Your task to perform on an android device: Go to eBay Image 0: 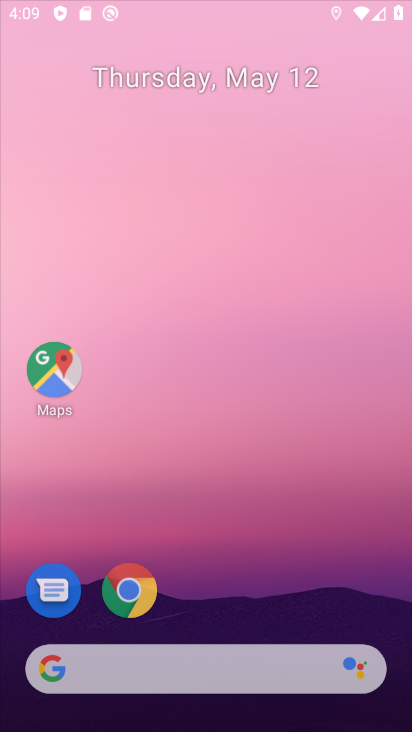
Step 0: click (199, 136)
Your task to perform on an android device: Go to eBay Image 1: 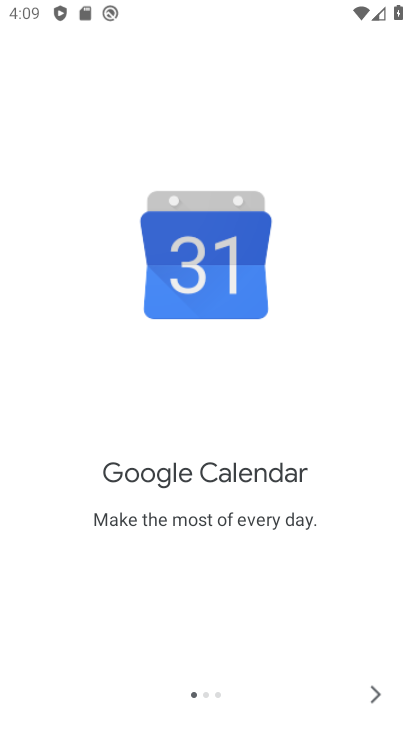
Step 1: press home button
Your task to perform on an android device: Go to eBay Image 2: 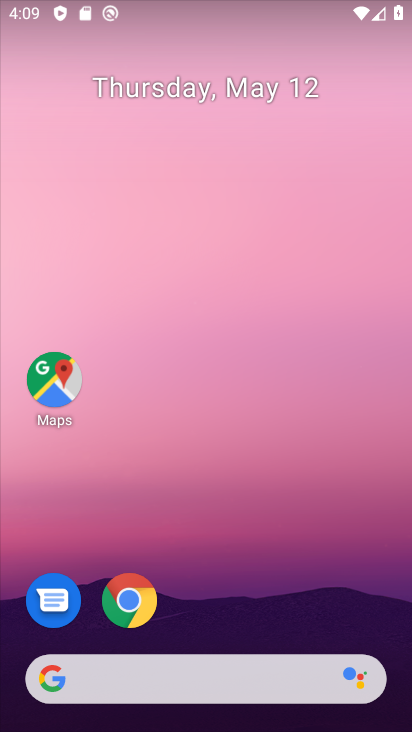
Step 2: drag from (216, 640) to (275, 134)
Your task to perform on an android device: Go to eBay Image 3: 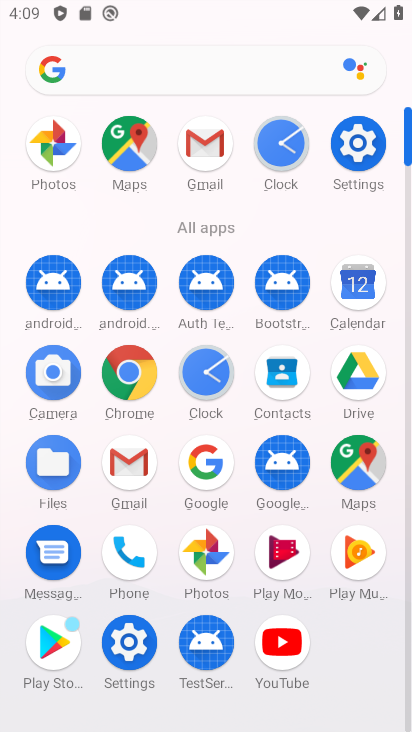
Step 3: click (162, 71)
Your task to perform on an android device: Go to eBay Image 4: 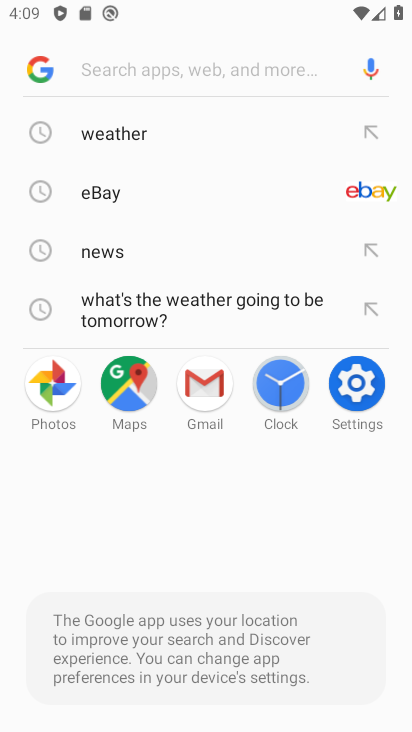
Step 4: click (175, 199)
Your task to perform on an android device: Go to eBay Image 5: 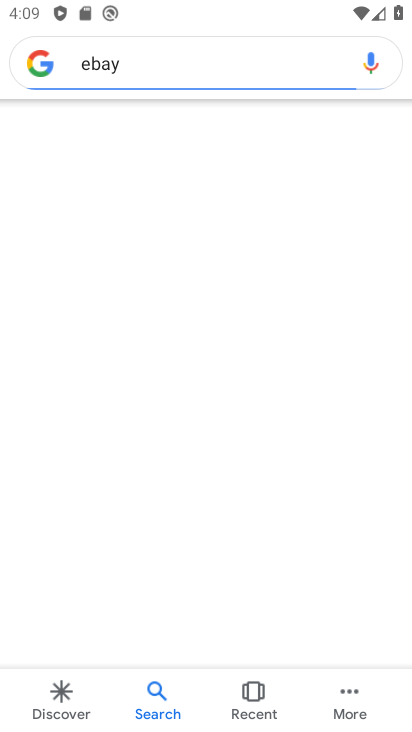
Step 5: drag from (215, 598) to (272, 282)
Your task to perform on an android device: Go to eBay Image 6: 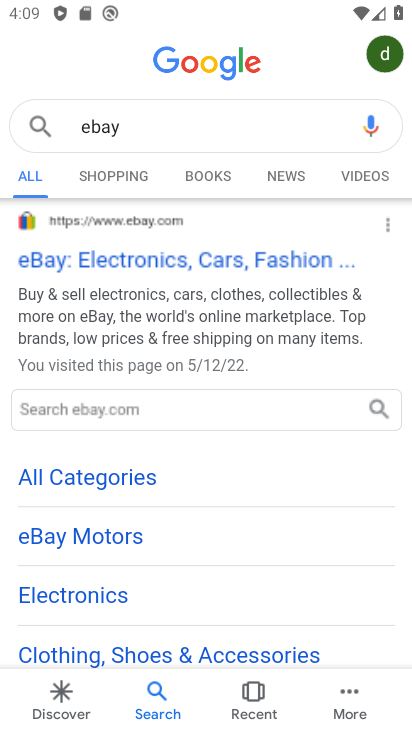
Step 6: drag from (169, 576) to (256, 215)
Your task to perform on an android device: Go to eBay Image 7: 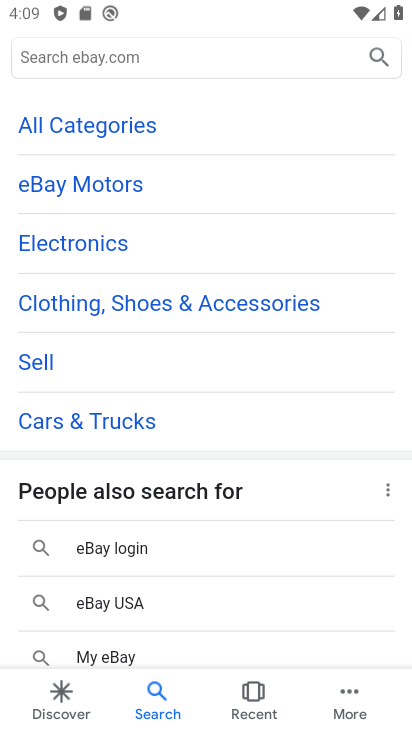
Step 7: drag from (187, 262) to (253, 643)
Your task to perform on an android device: Go to eBay Image 8: 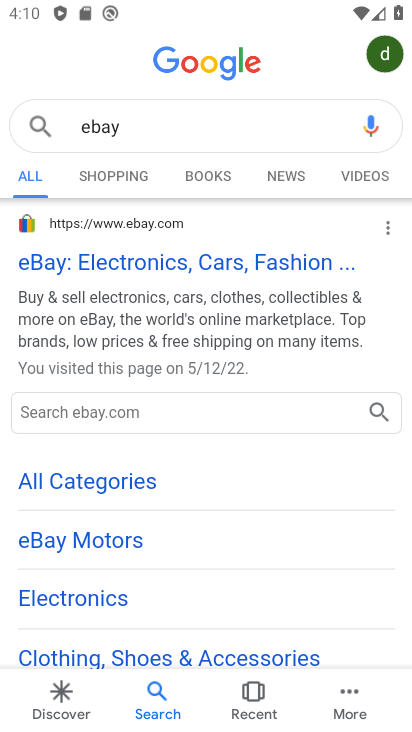
Step 8: click (88, 262)
Your task to perform on an android device: Go to eBay Image 9: 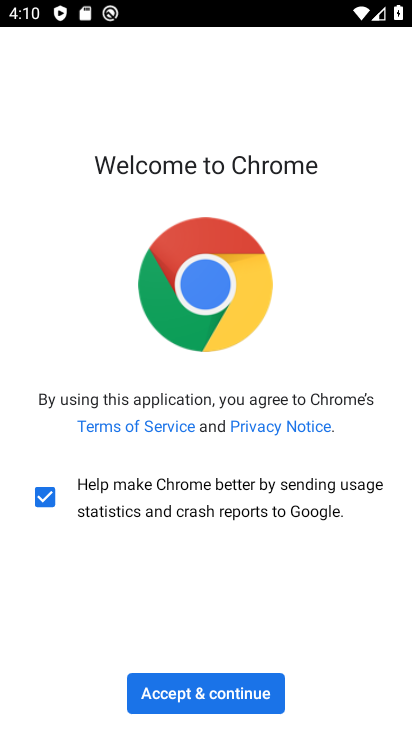
Step 9: drag from (204, 584) to (235, 268)
Your task to perform on an android device: Go to eBay Image 10: 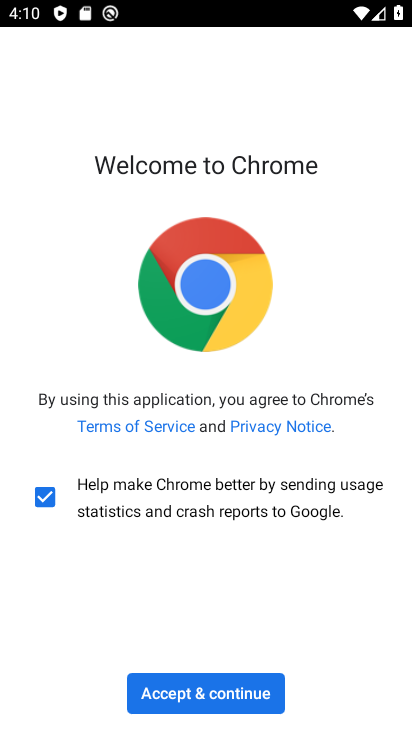
Step 10: click (56, 501)
Your task to perform on an android device: Go to eBay Image 11: 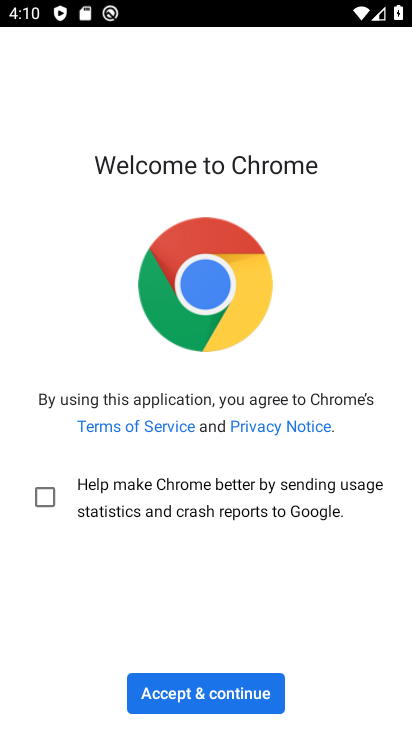
Step 11: click (197, 689)
Your task to perform on an android device: Go to eBay Image 12: 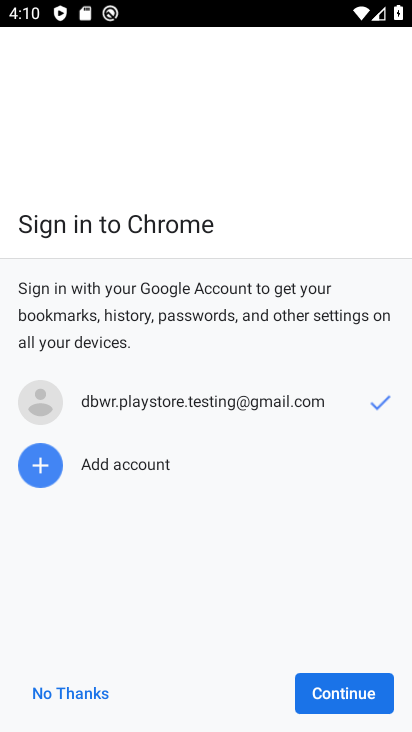
Step 12: click (327, 692)
Your task to perform on an android device: Go to eBay Image 13: 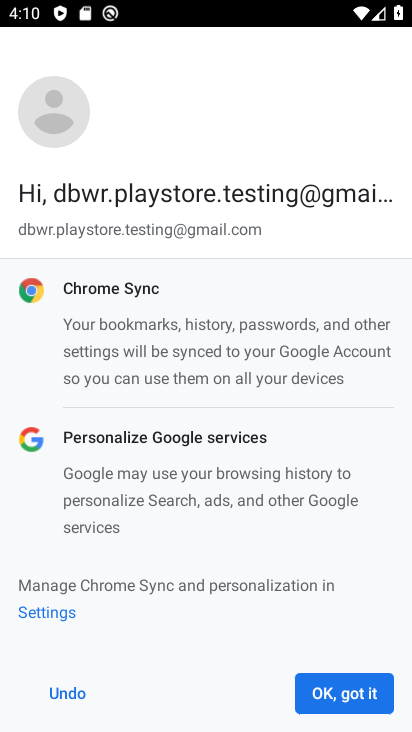
Step 13: click (362, 694)
Your task to perform on an android device: Go to eBay Image 14: 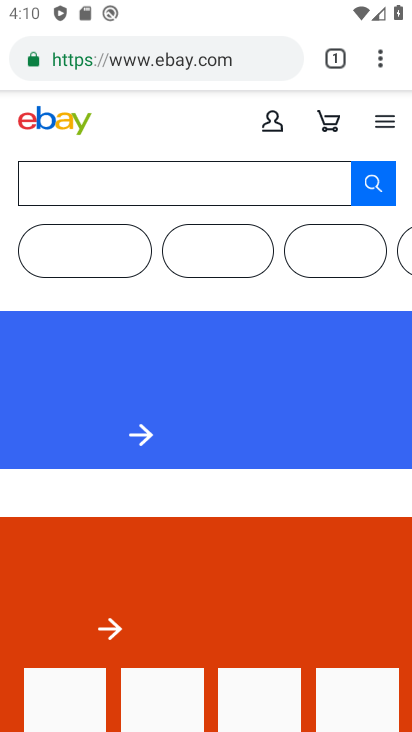
Step 14: task complete